Your task to perform on an android device: turn off wifi Image 0: 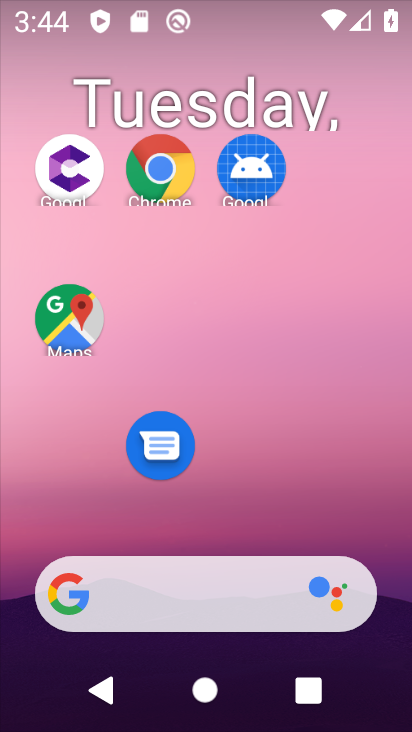
Step 0: drag from (287, 497) to (304, 0)
Your task to perform on an android device: turn off wifi Image 1: 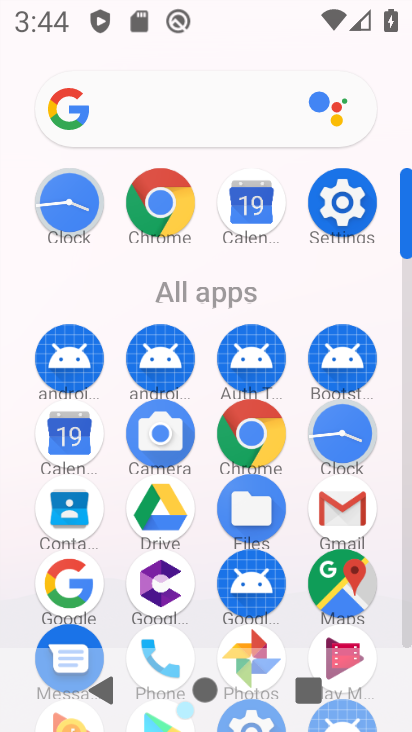
Step 1: click (344, 199)
Your task to perform on an android device: turn off wifi Image 2: 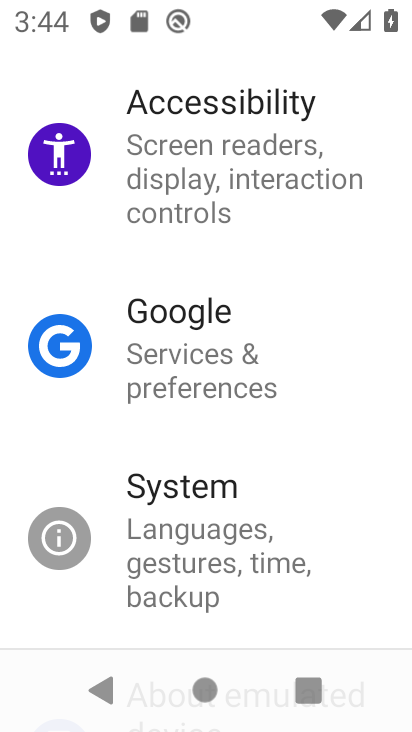
Step 2: drag from (306, 225) to (294, 719)
Your task to perform on an android device: turn off wifi Image 3: 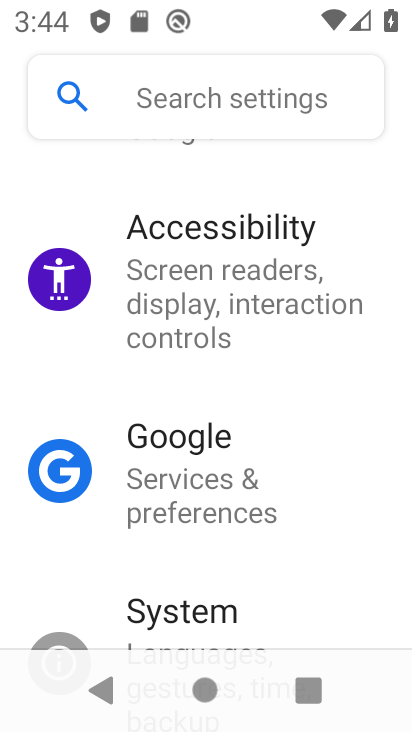
Step 3: drag from (306, 184) to (290, 561)
Your task to perform on an android device: turn off wifi Image 4: 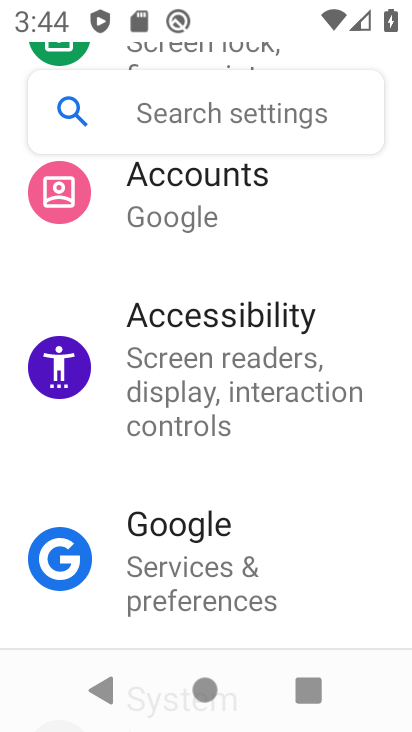
Step 4: drag from (288, 237) to (270, 583)
Your task to perform on an android device: turn off wifi Image 5: 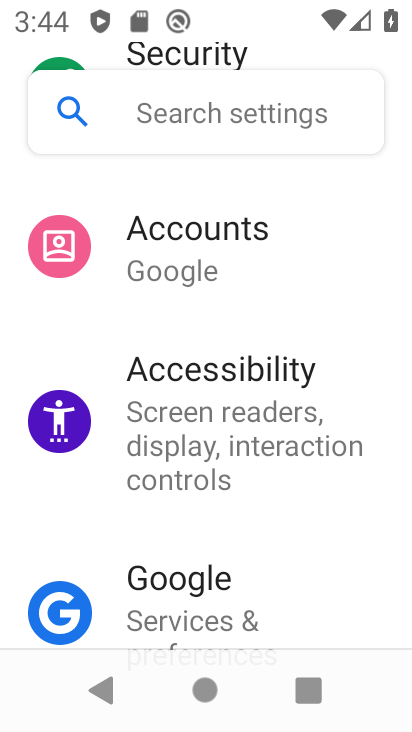
Step 5: click (318, 599)
Your task to perform on an android device: turn off wifi Image 6: 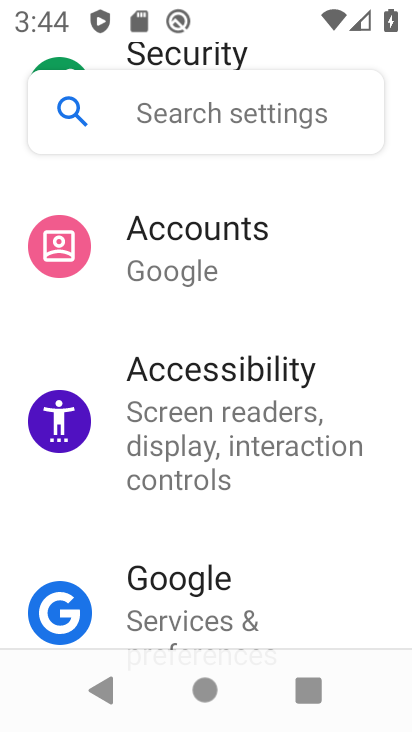
Step 6: drag from (296, 195) to (283, 730)
Your task to perform on an android device: turn off wifi Image 7: 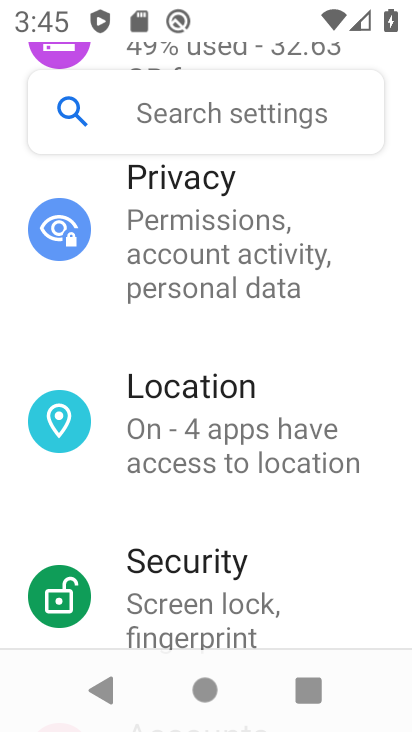
Step 7: drag from (287, 314) to (320, 502)
Your task to perform on an android device: turn off wifi Image 8: 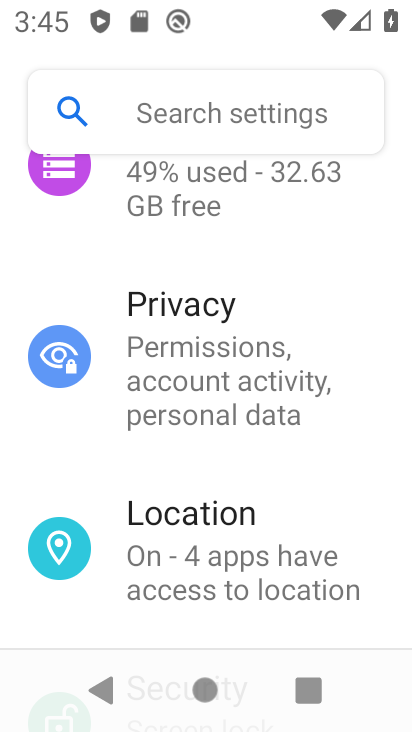
Step 8: drag from (251, 243) to (342, 672)
Your task to perform on an android device: turn off wifi Image 9: 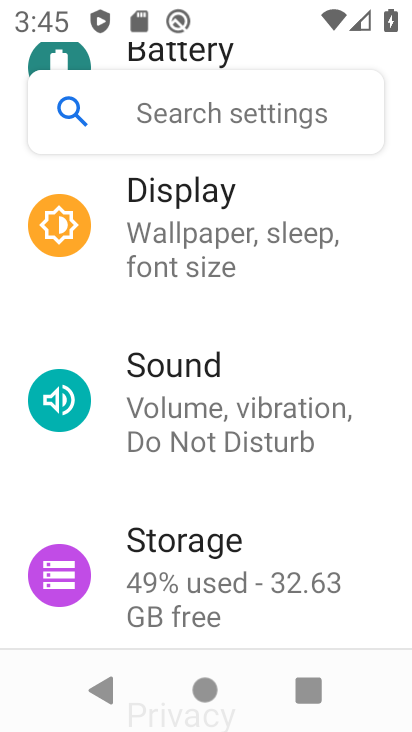
Step 9: drag from (289, 374) to (376, 722)
Your task to perform on an android device: turn off wifi Image 10: 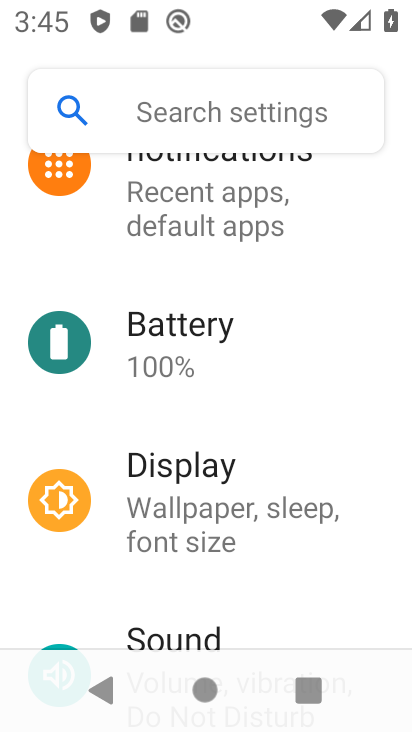
Step 10: drag from (229, 265) to (304, 643)
Your task to perform on an android device: turn off wifi Image 11: 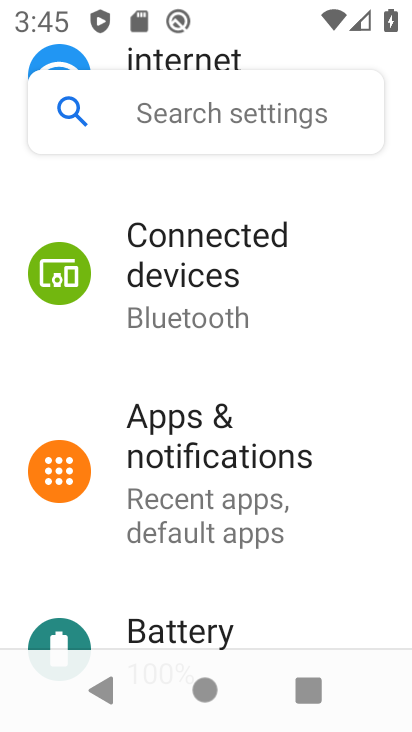
Step 11: drag from (318, 194) to (384, 615)
Your task to perform on an android device: turn off wifi Image 12: 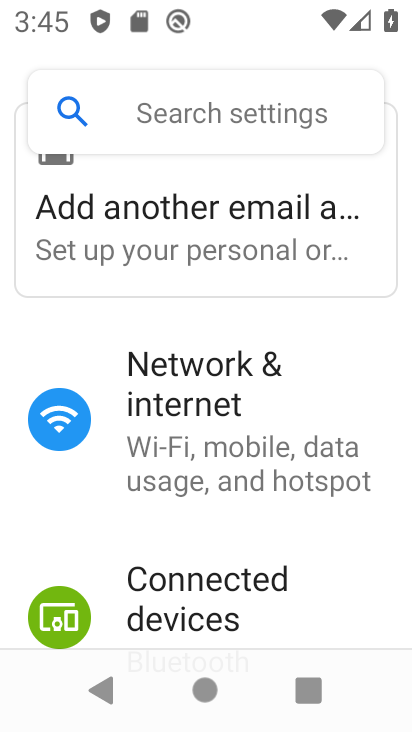
Step 12: click (190, 378)
Your task to perform on an android device: turn off wifi Image 13: 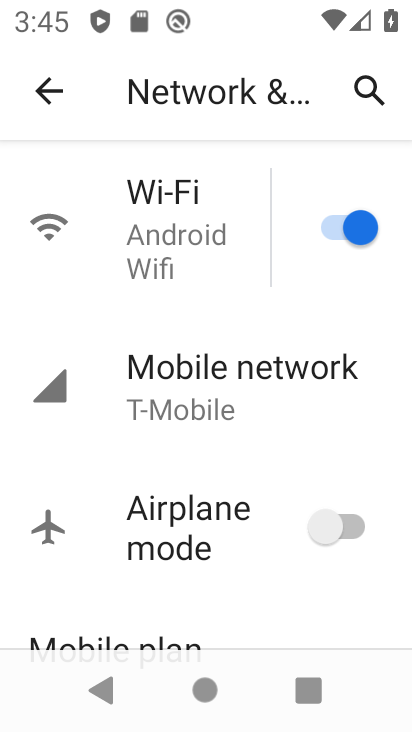
Step 13: click (339, 221)
Your task to perform on an android device: turn off wifi Image 14: 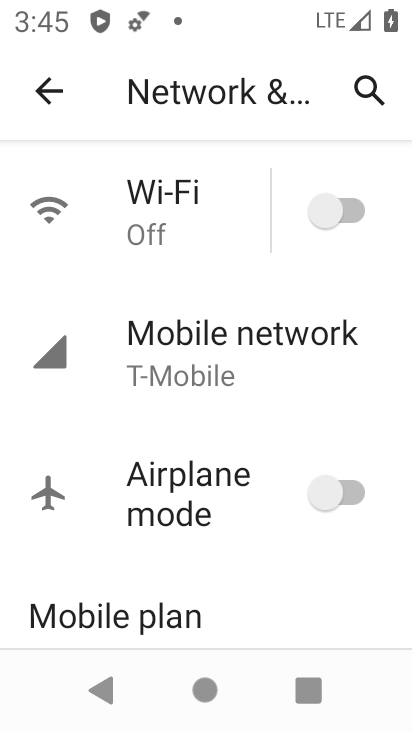
Step 14: task complete